Your task to perform on an android device: Open wifi settings Image 0: 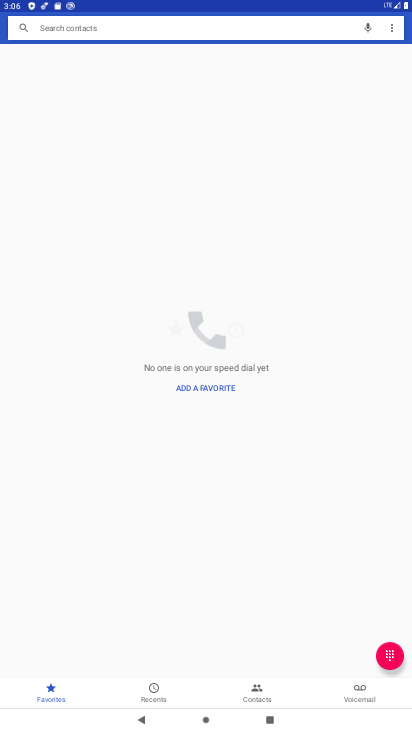
Step 0: drag from (98, 6) to (146, 595)
Your task to perform on an android device: Open wifi settings Image 1: 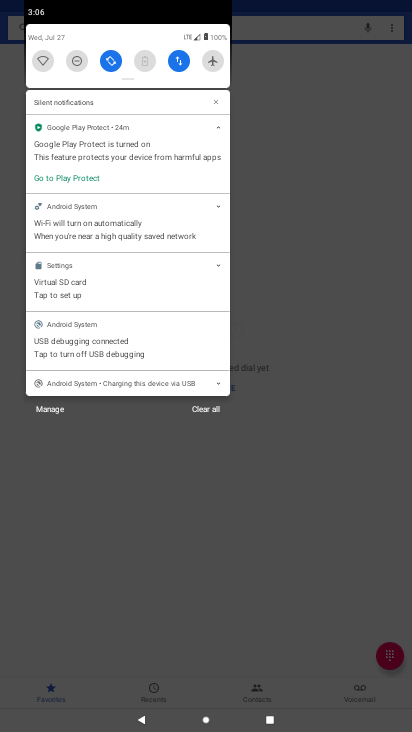
Step 1: click (39, 56)
Your task to perform on an android device: Open wifi settings Image 2: 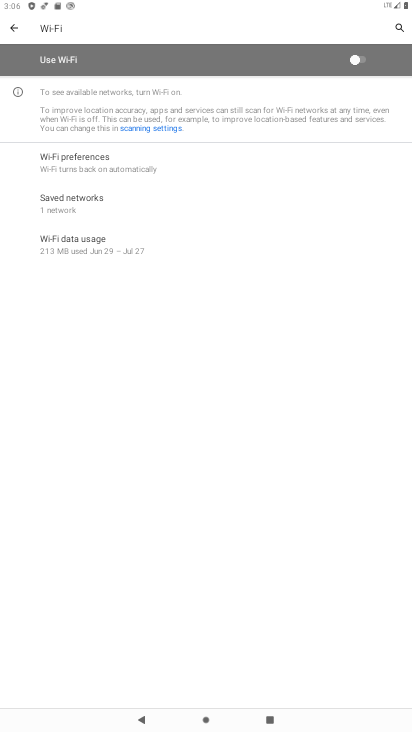
Step 2: task complete